Your task to perform on an android device: Open calendar and show me the first week of next month Image 0: 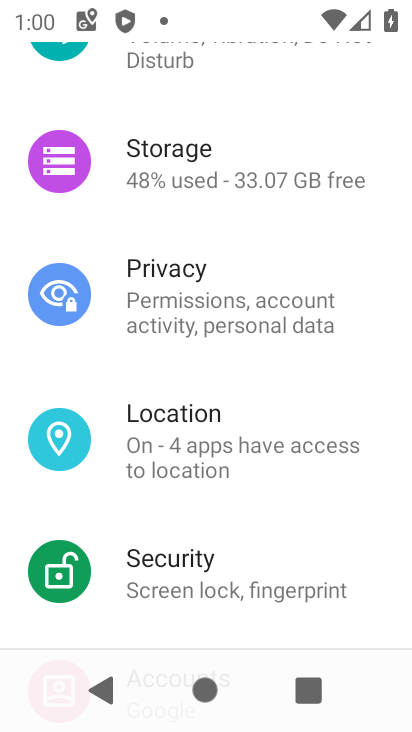
Step 0: press home button
Your task to perform on an android device: Open calendar and show me the first week of next month Image 1: 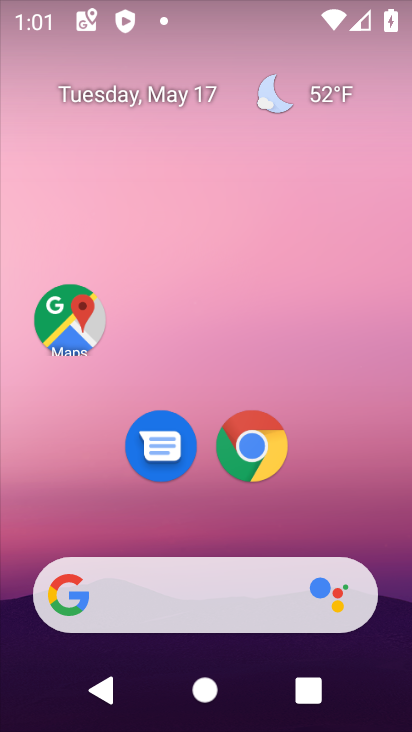
Step 1: drag from (195, 520) to (263, 189)
Your task to perform on an android device: Open calendar and show me the first week of next month Image 2: 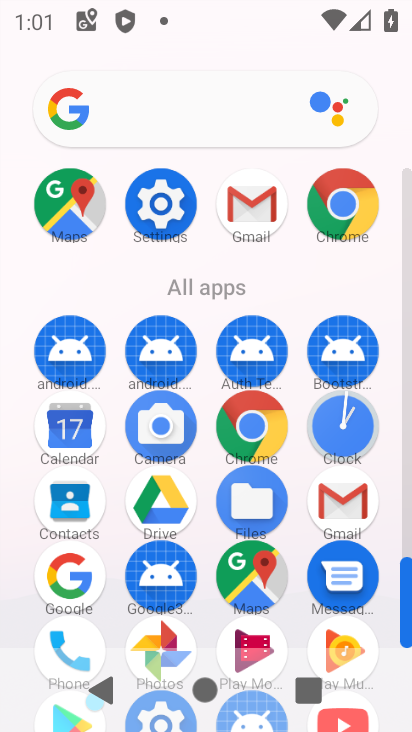
Step 2: click (72, 432)
Your task to perform on an android device: Open calendar and show me the first week of next month Image 3: 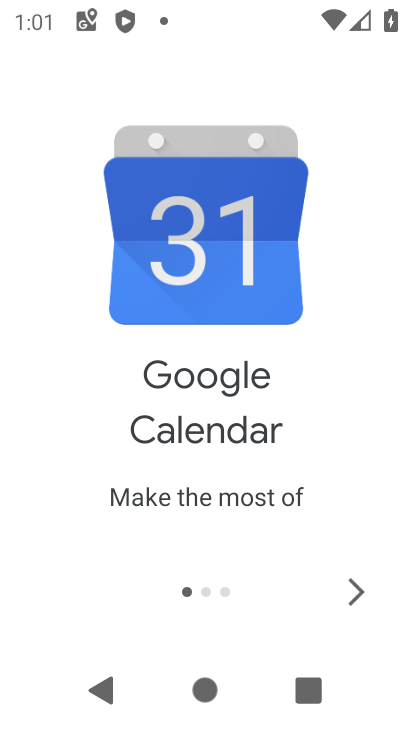
Step 3: click (357, 589)
Your task to perform on an android device: Open calendar and show me the first week of next month Image 4: 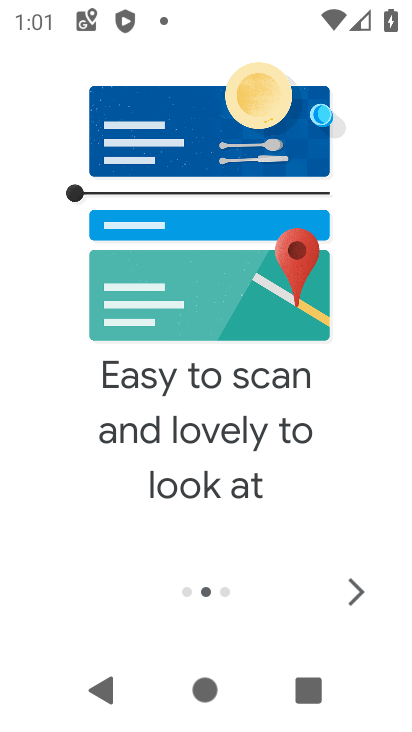
Step 4: click (357, 588)
Your task to perform on an android device: Open calendar and show me the first week of next month Image 5: 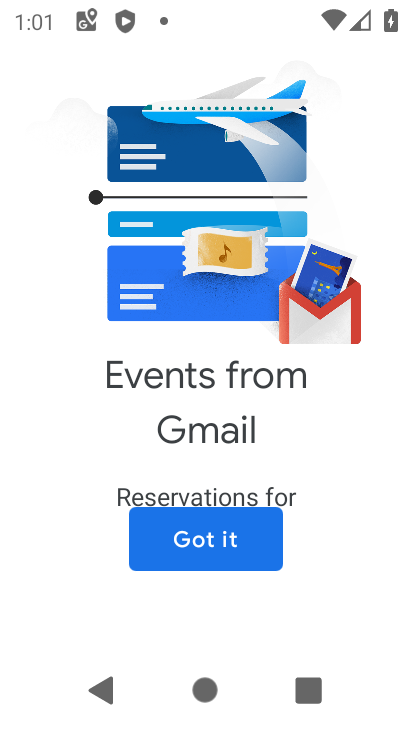
Step 5: click (255, 559)
Your task to perform on an android device: Open calendar and show me the first week of next month Image 6: 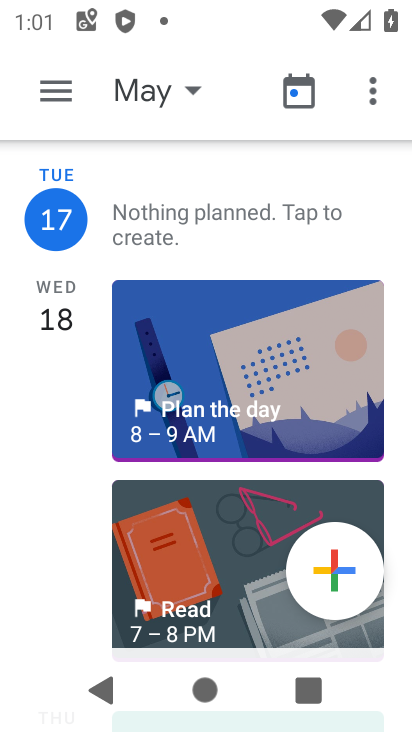
Step 6: click (184, 83)
Your task to perform on an android device: Open calendar and show me the first week of next month Image 7: 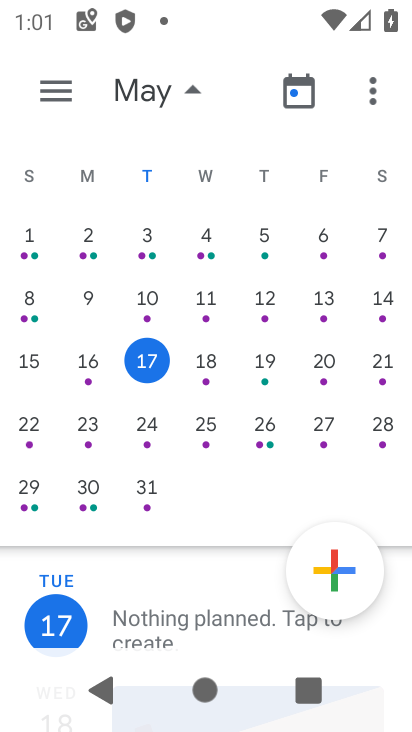
Step 7: drag from (391, 328) to (32, 297)
Your task to perform on an android device: Open calendar and show me the first week of next month Image 8: 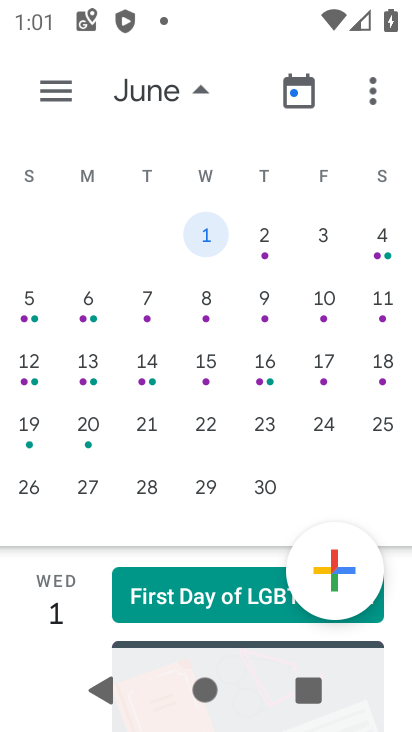
Step 8: click (260, 238)
Your task to perform on an android device: Open calendar and show me the first week of next month Image 9: 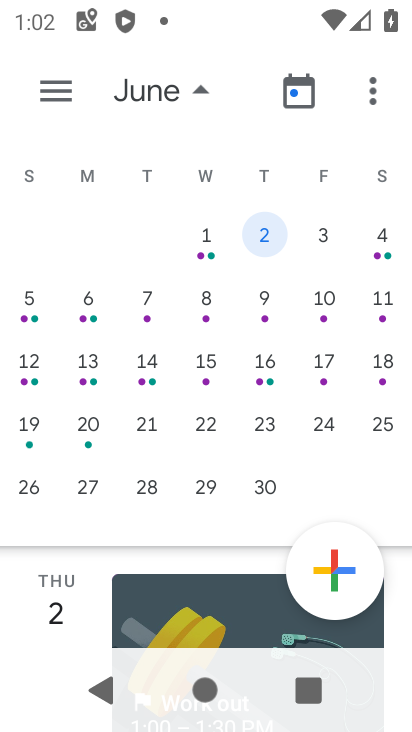
Step 9: click (309, 236)
Your task to perform on an android device: Open calendar and show me the first week of next month Image 10: 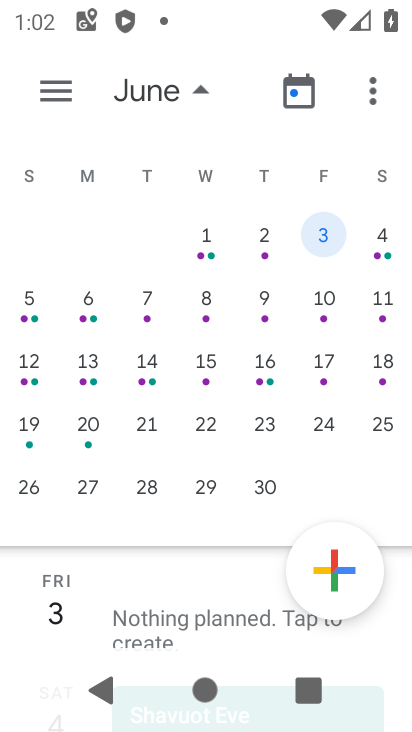
Step 10: click (374, 236)
Your task to perform on an android device: Open calendar and show me the first week of next month Image 11: 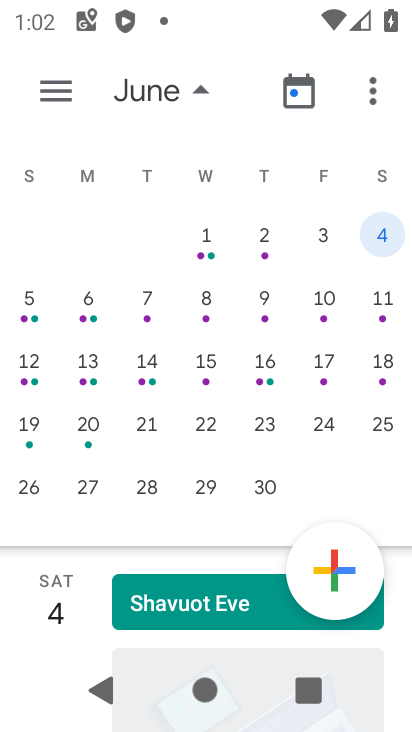
Step 11: click (55, 99)
Your task to perform on an android device: Open calendar and show me the first week of next month Image 12: 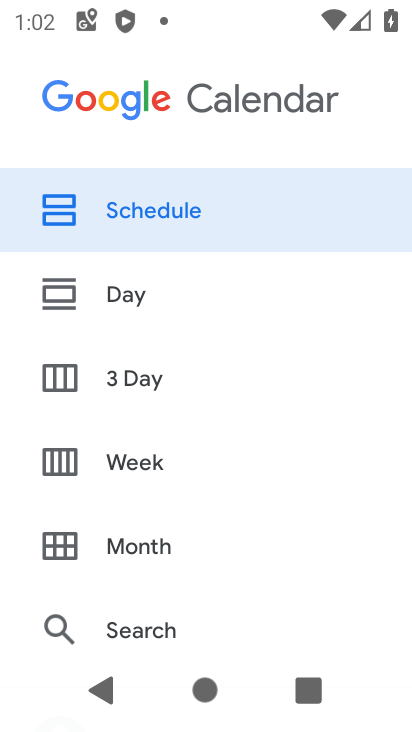
Step 12: click (175, 472)
Your task to perform on an android device: Open calendar and show me the first week of next month Image 13: 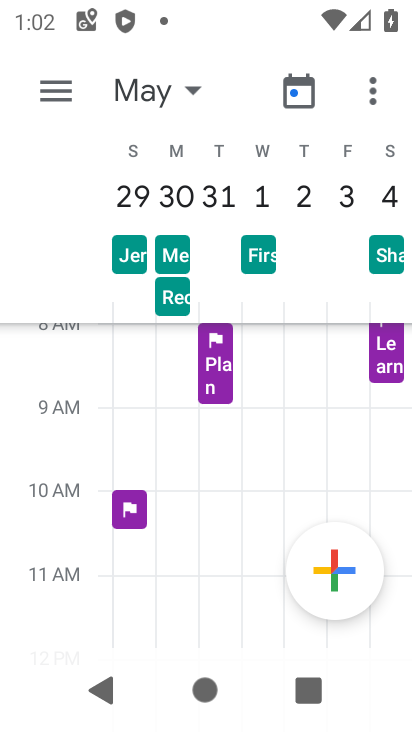
Step 13: task complete